Your task to perform on an android device: Empty the shopping cart on costco. Search for sony triple a on costco, select the first entry, add it to the cart, then select checkout. Image 0: 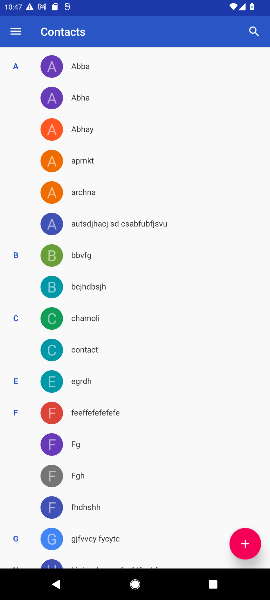
Step 0: press home button
Your task to perform on an android device: Empty the shopping cart on costco. Search for sony triple a on costco, select the first entry, add it to the cart, then select checkout. Image 1: 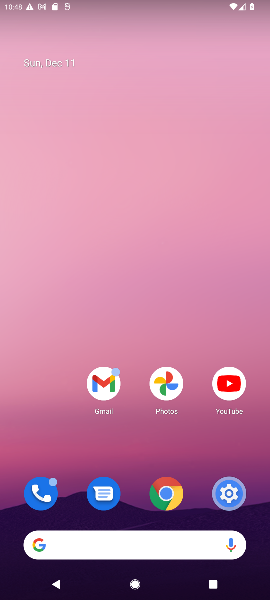
Step 1: click (78, 544)
Your task to perform on an android device: Empty the shopping cart on costco. Search for sony triple a on costco, select the first entry, add it to the cart, then select checkout. Image 2: 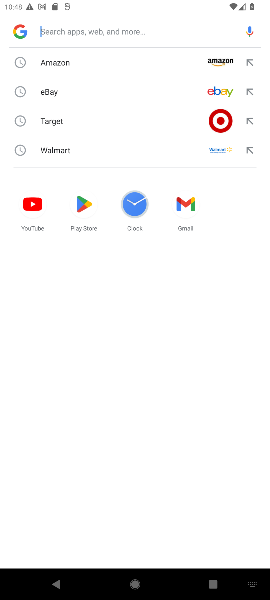
Step 2: type "costco"
Your task to perform on an android device: Empty the shopping cart on costco. Search for sony triple a on costco, select the first entry, add it to the cart, then select checkout. Image 3: 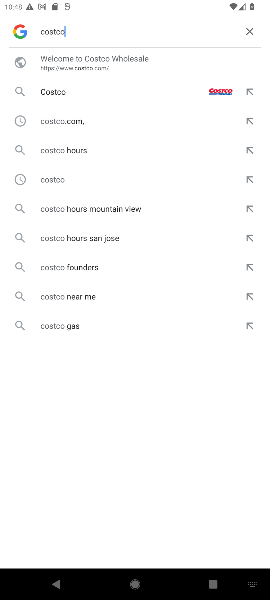
Step 3: click (151, 68)
Your task to perform on an android device: Empty the shopping cart on costco. Search for sony triple a on costco, select the first entry, add it to the cart, then select checkout. Image 4: 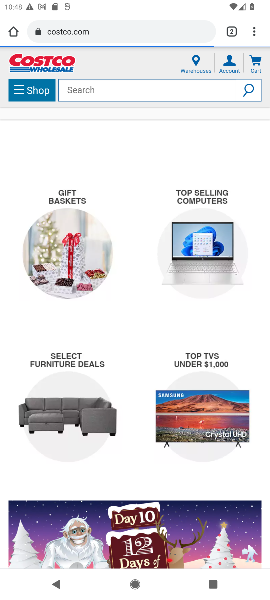
Step 4: click (120, 97)
Your task to perform on an android device: Empty the shopping cart on costco. Search for sony triple a on costco, select the first entry, add it to the cart, then select checkout. Image 5: 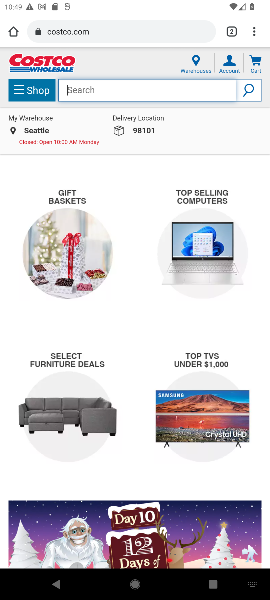
Step 5: type "sony triple a"
Your task to perform on an android device: Empty the shopping cart on costco. Search for sony triple a on costco, select the first entry, add it to the cart, then select checkout. Image 6: 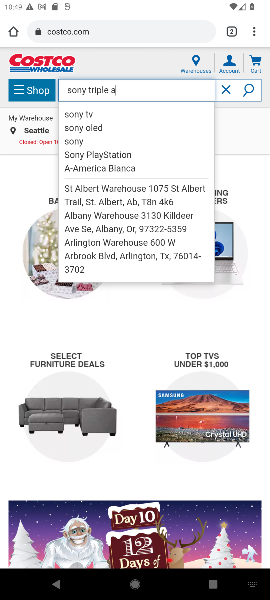
Step 6: click (244, 87)
Your task to perform on an android device: Empty the shopping cart on costco. Search for sony triple a on costco, select the first entry, add it to the cart, then select checkout. Image 7: 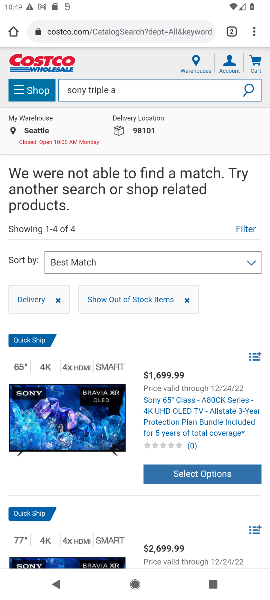
Step 7: drag from (116, 499) to (121, 190)
Your task to perform on an android device: Empty the shopping cart on costco. Search for sony triple a on costco, select the first entry, add it to the cart, then select checkout. Image 8: 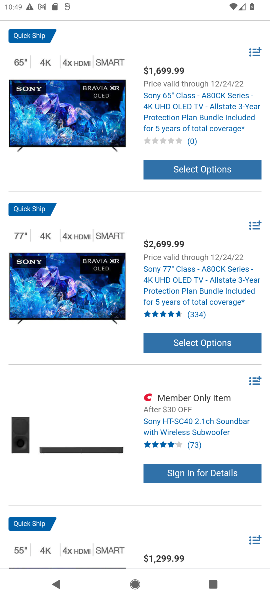
Step 8: click (186, 170)
Your task to perform on an android device: Empty the shopping cart on costco. Search for sony triple a on costco, select the first entry, add it to the cart, then select checkout. Image 9: 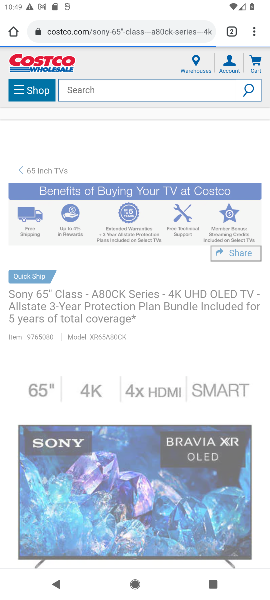
Step 9: drag from (111, 473) to (121, 157)
Your task to perform on an android device: Empty the shopping cart on costco. Search for sony triple a on costco, select the first entry, add it to the cart, then select checkout. Image 10: 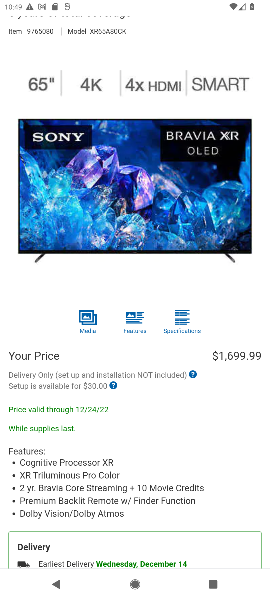
Step 10: drag from (173, 471) to (180, 187)
Your task to perform on an android device: Empty the shopping cart on costco. Search for sony triple a on costco, select the first entry, add it to the cart, then select checkout. Image 11: 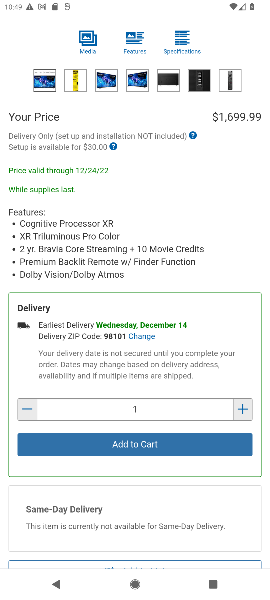
Step 11: click (155, 452)
Your task to perform on an android device: Empty the shopping cart on costco. Search for sony triple a on costco, select the first entry, add it to the cart, then select checkout. Image 12: 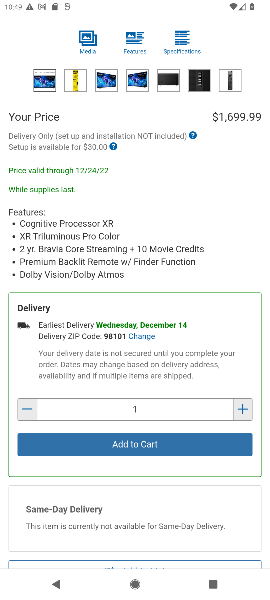
Step 12: task complete